Your task to perform on an android device: toggle wifi Image 0: 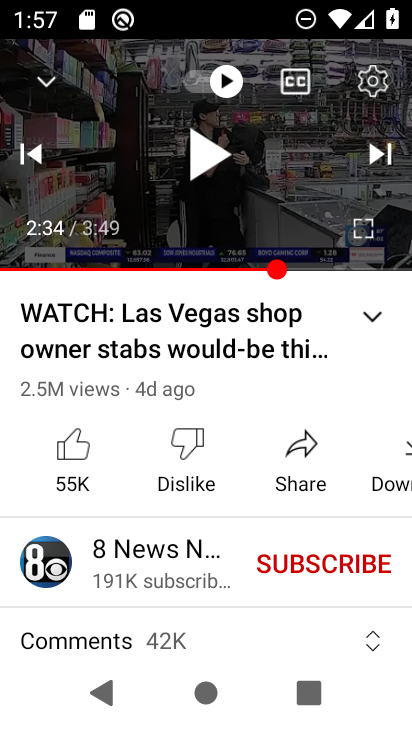
Step 0: drag from (207, 21) to (253, 702)
Your task to perform on an android device: toggle wifi Image 1: 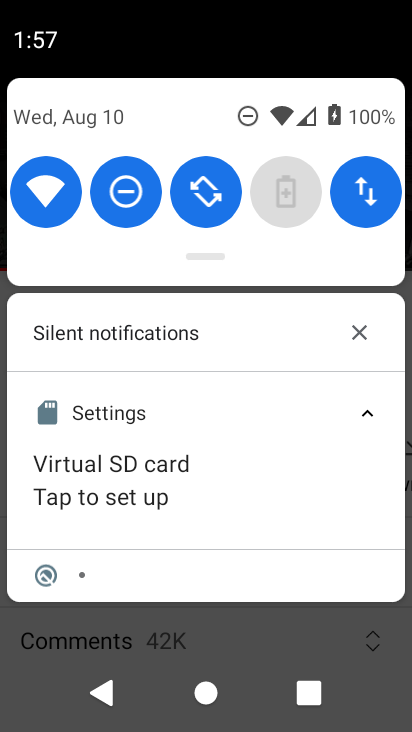
Step 1: click (47, 173)
Your task to perform on an android device: toggle wifi Image 2: 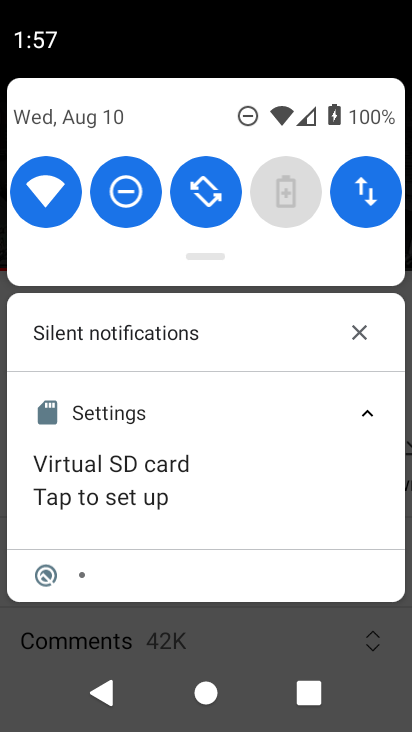
Step 2: click (47, 173)
Your task to perform on an android device: toggle wifi Image 3: 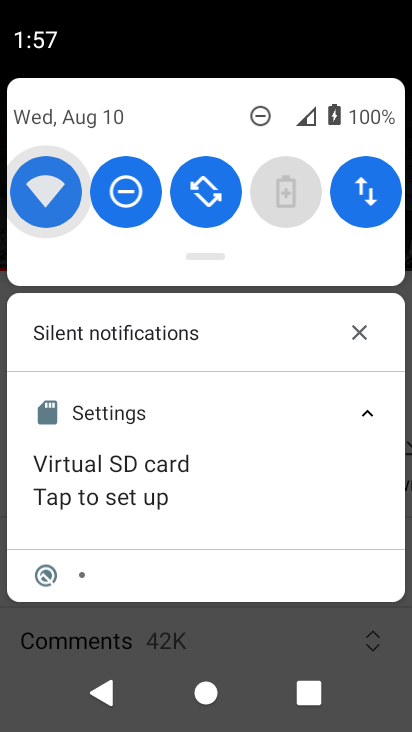
Step 3: click (47, 173)
Your task to perform on an android device: toggle wifi Image 4: 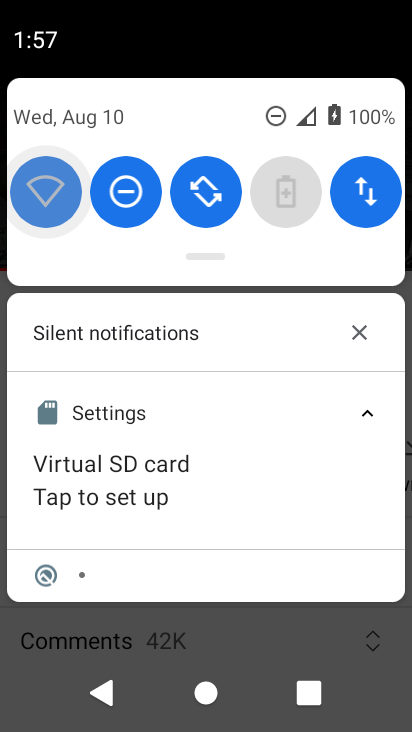
Step 4: click (47, 173)
Your task to perform on an android device: toggle wifi Image 5: 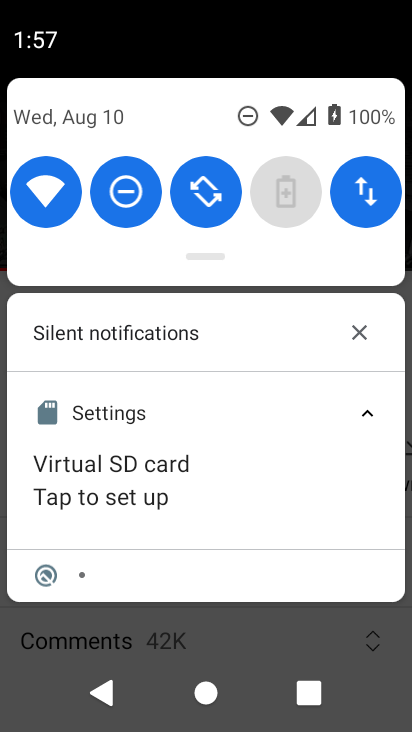
Step 5: task complete